Your task to perform on an android device: empty trash in google photos Image 0: 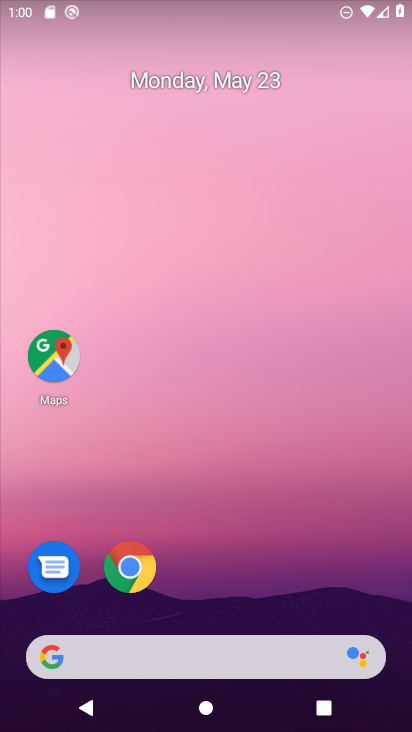
Step 0: drag from (200, 620) to (228, 103)
Your task to perform on an android device: empty trash in google photos Image 1: 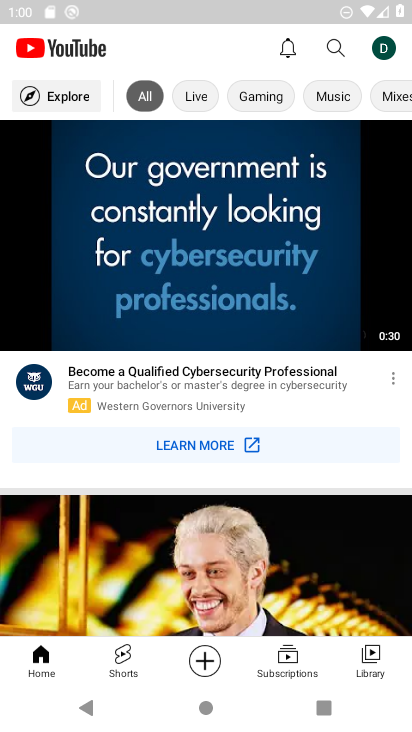
Step 1: press home button
Your task to perform on an android device: empty trash in google photos Image 2: 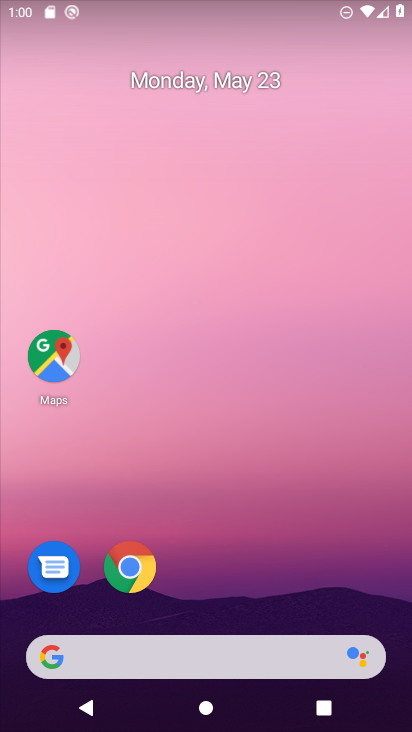
Step 2: drag from (207, 612) to (225, 59)
Your task to perform on an android device: empty trash in google photos Image 3: 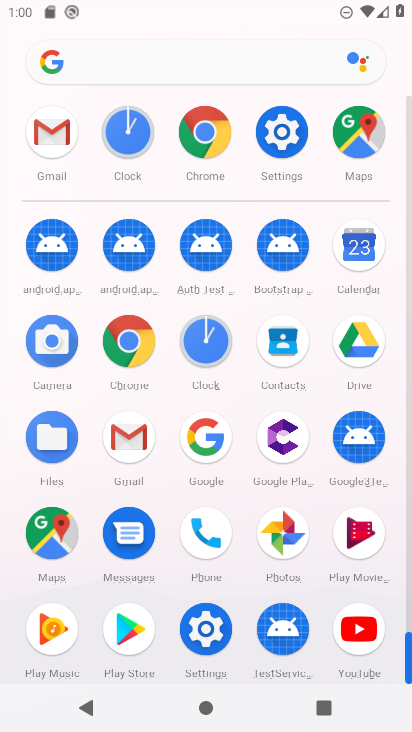
Step 3: click (283, 536)
Your task to perform on an android device: empty trash in google photos Image 4: 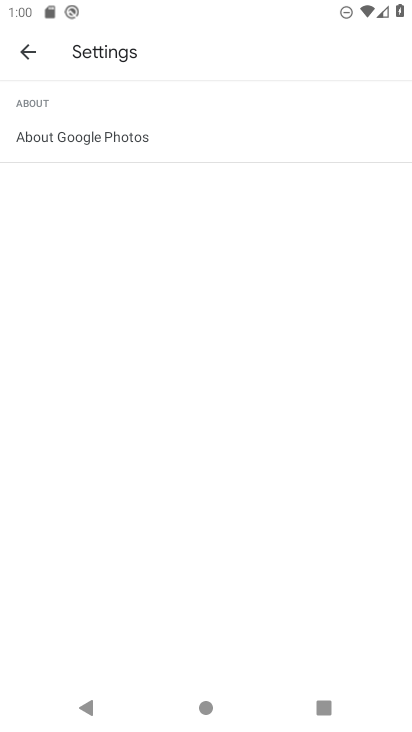
Step 4: click (33, 59)
Your task to perform on an android device: empty trash in google photos Image 5: 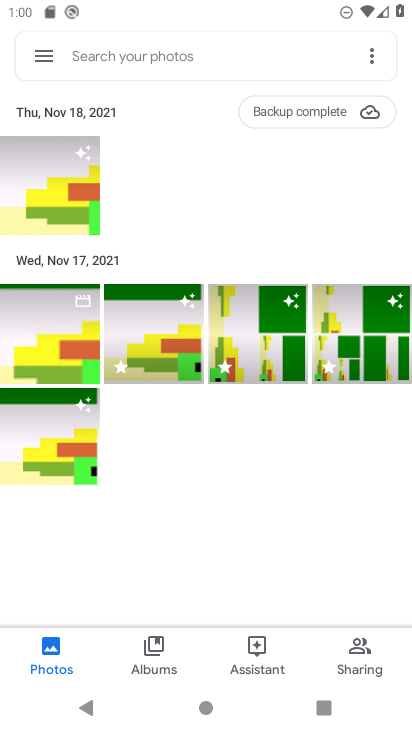
Step 5: click (33, 59)
Your task to perform on an android device: empty trash in google photos Image 6: 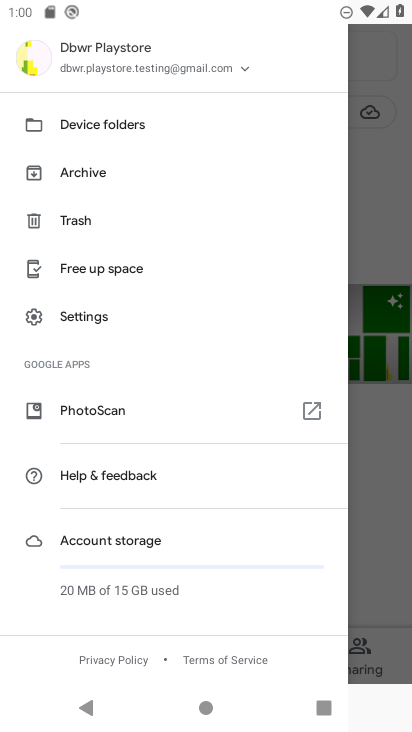
Step 6: click (116, 229)
Your task to perform on an android device: empty trash in google photos Image 7: 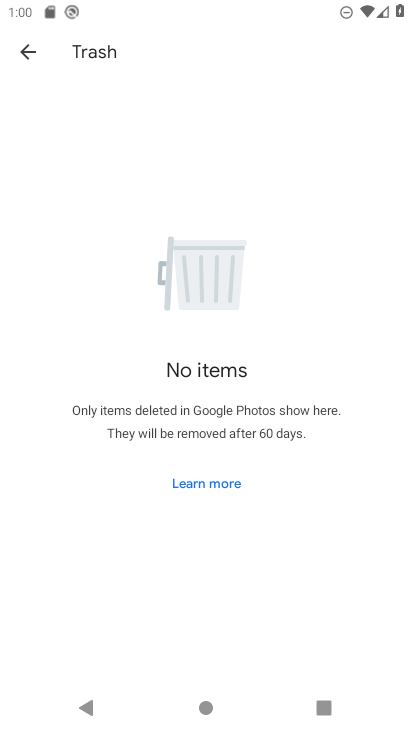
Step 7: task complete